Your task to perform on an android device: Go to calendar. Show me events next week Image 0: 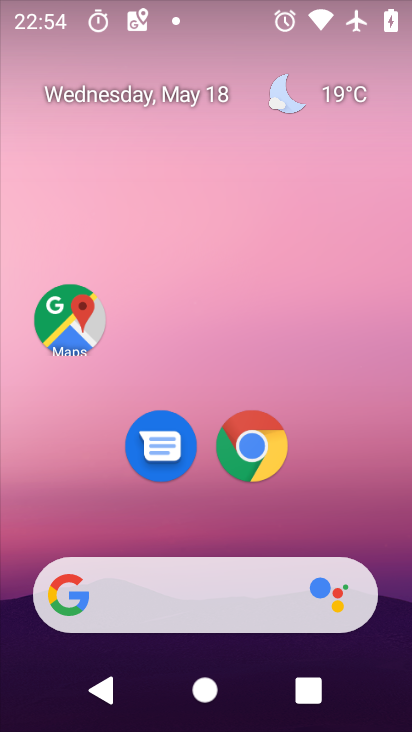
Step 0: press home button
Your task to perform on an android device: Go to calendar. Show me events next week Image 1: 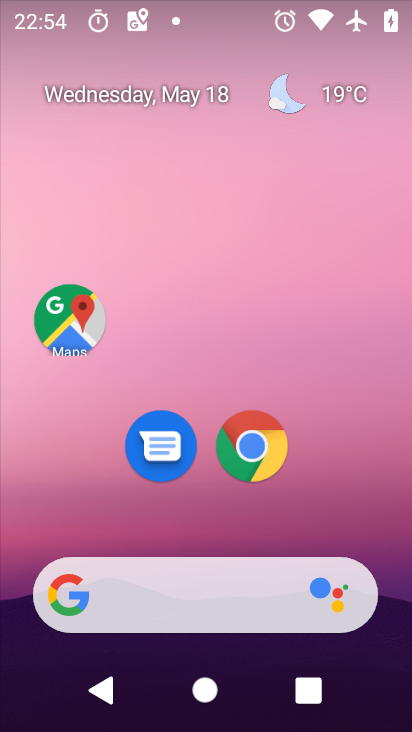
Step 1: drag from (165, 578) to (299, 114)
Your task to perform on an android device: Go to calendar. Show me events next week Image 2: 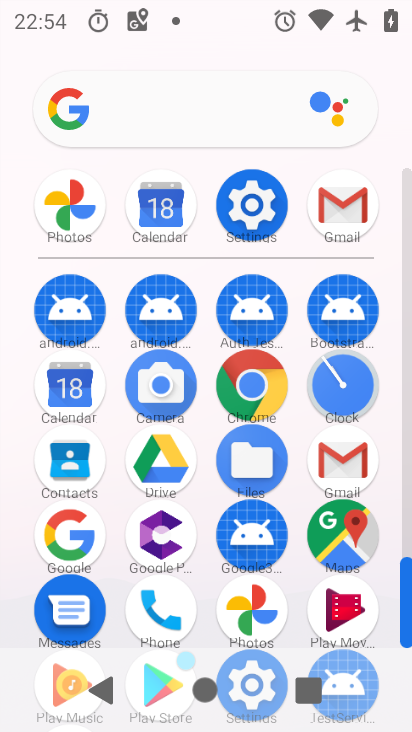
Step 2: click (168, 206)
Your task to perform on an android device: Go to calendar. Show me events next week Image 3: 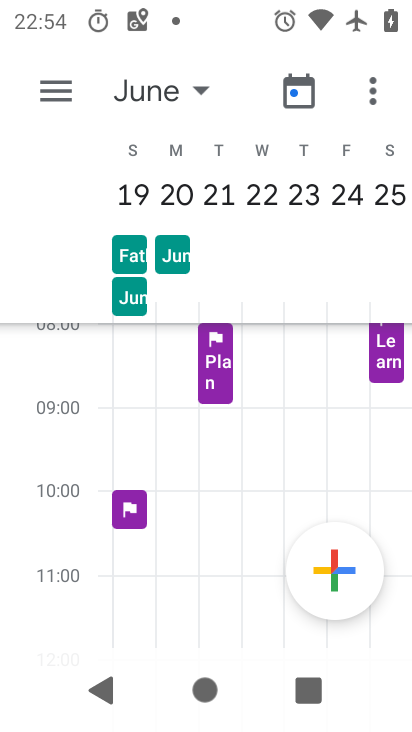
Step 3: click (155, 84)
Your task to perform on an android device: Go to calendar. Show me events next week Image 4: 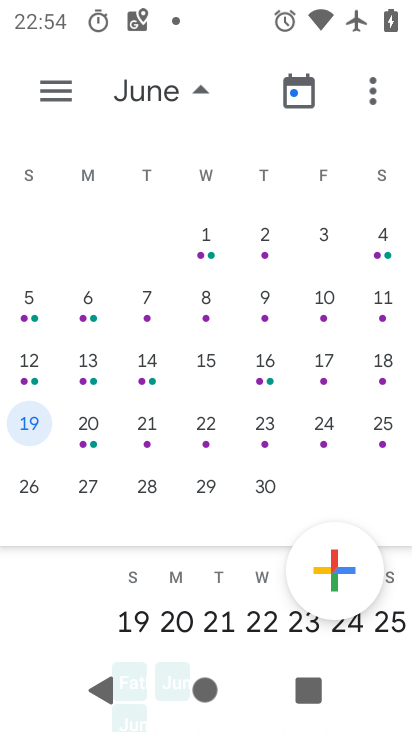
Step 4: drag from (124, 365) to (411, 367)
Your task to perform on an android device: Go to calendar. Show me events next week Image 5: 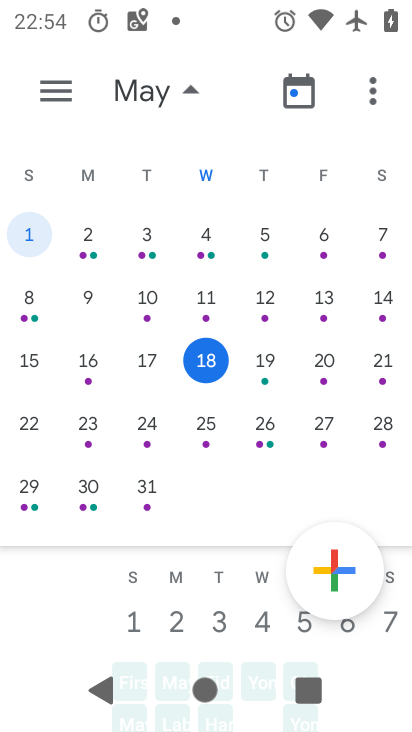
Step 5: click (38, 424)
Your task to perform on an android device: Go to calendar. Show me events next week Image 6: 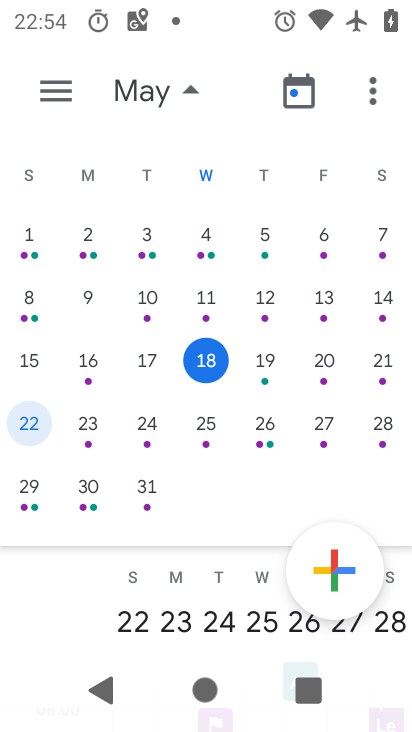
Step 6: click (66, 83)
Your task to perform on an android device: Go to calendar. Show me events next week Image 7: 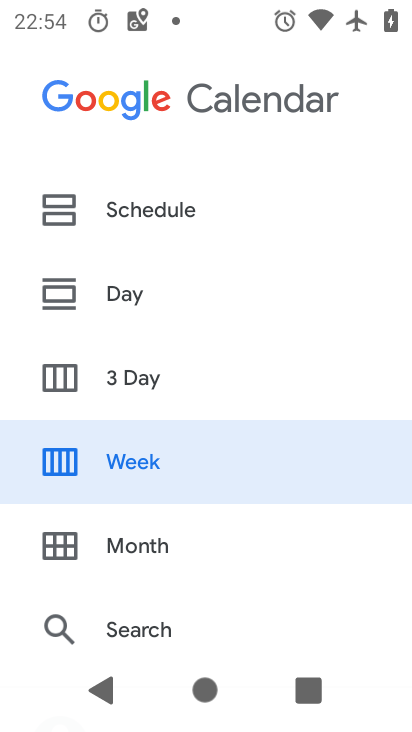
Step 7: click (143, 467)
Your task to perform on an android device: Go to calendar. Show me events next week Image 8: 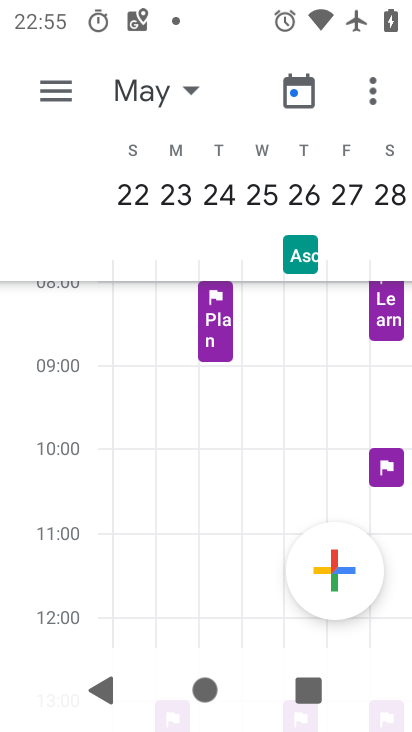
Step 8: task complete